Your task to perform on an android device: Go to internet settings Image 0: 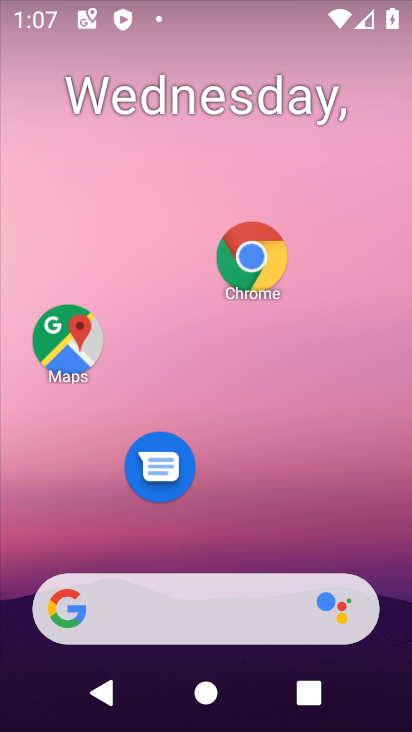
Step 0: drag from (314, 487) to (216, 92)
Your task to perform on an android device: Go to internet settings Image 1: 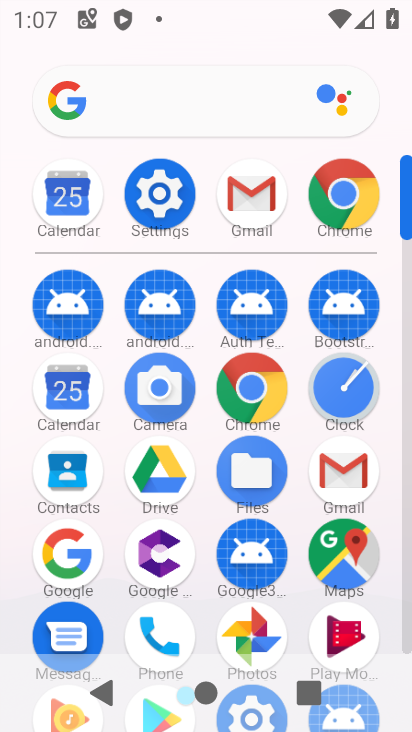
Step 1: click (185, 213)
Your task to perform on an android device: Go to internet settings Image 2: 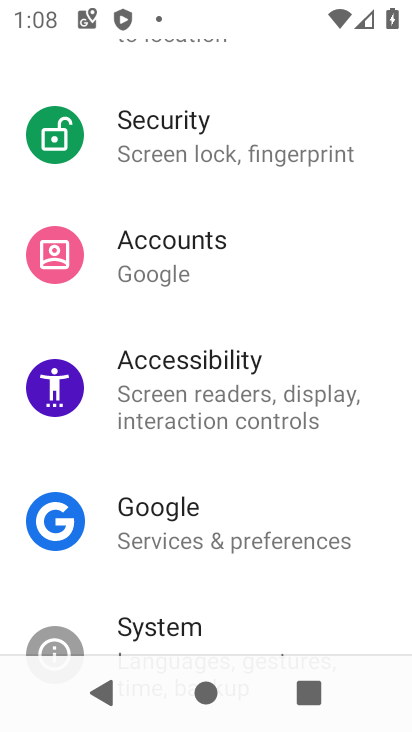
Step 2: drag from (205, 212) to (186, 628)
Your task to perform on an android device: Go to internet settings Image 3: 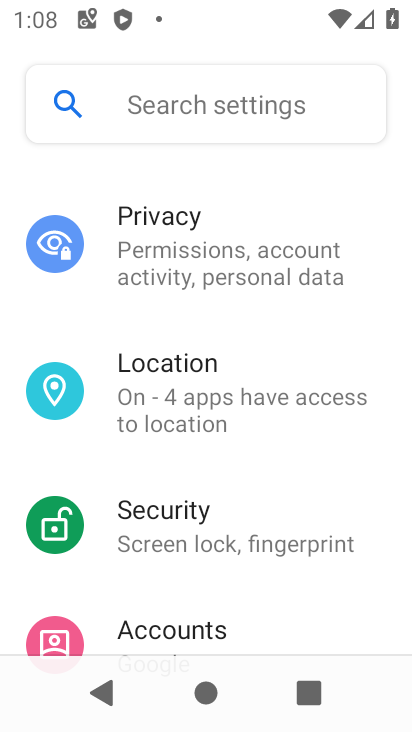
Step 3: drag from (232, 192) to (236, 573)
Your task to perform on an android device: Go to internet settings Image 4: 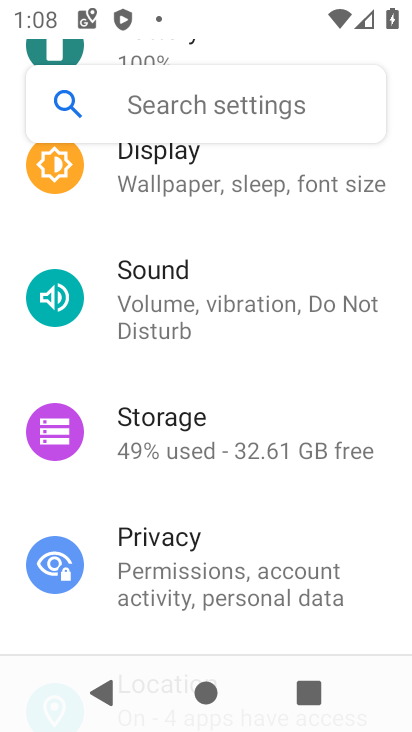
Step 4: drag from (156, 177) to (125, 669)
Your task to perform on an android device: Go to internet settings Image 5: 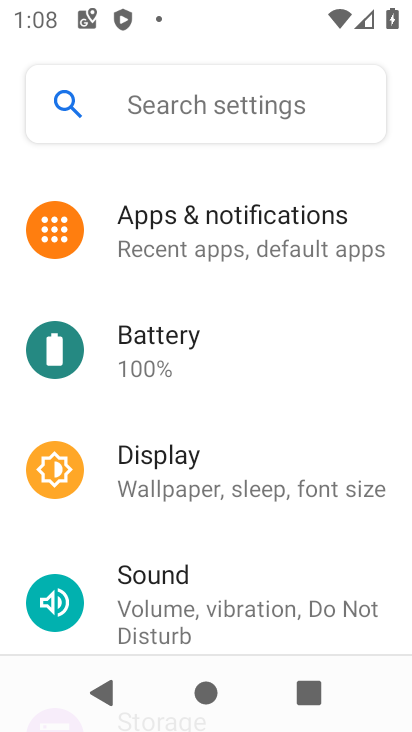
Step 5: drag from (336, 254) to (298, 669)
Your task to perform on an android device: Go to internet settings Image 6: 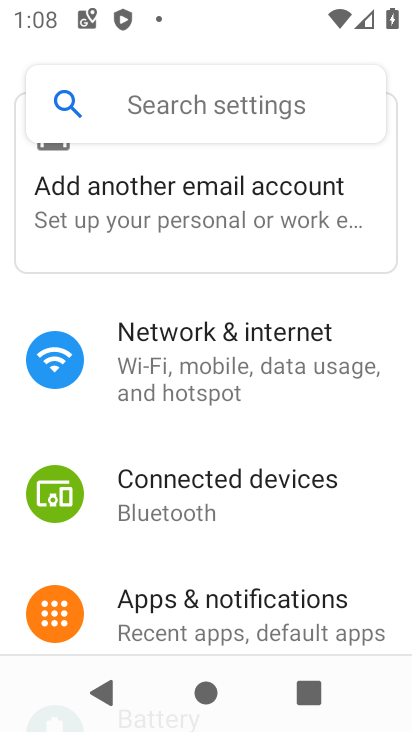
Step 6: click (266, 347)
Your task to perform on an android device: Go to internet settings Image 7: 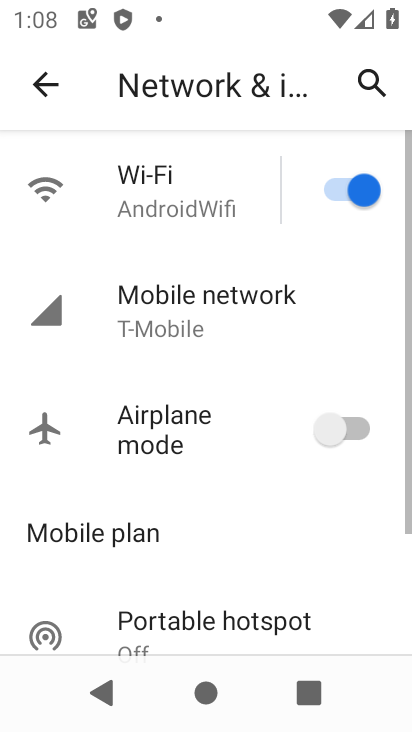
Step 7: task complete